Your task to perform on an android device: Go to Reddit.com Image 0: 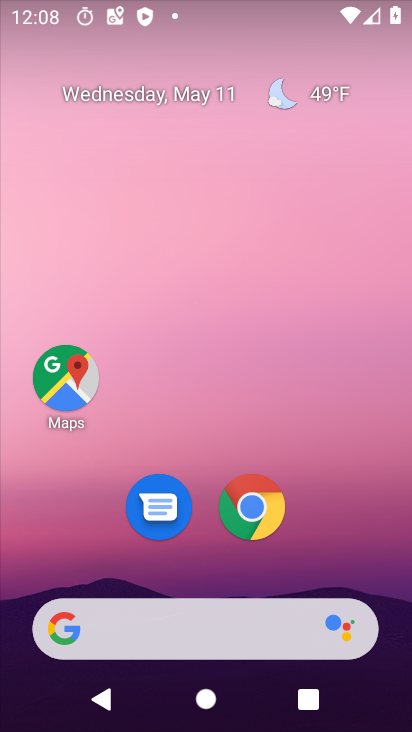
Step 0: drag from (204, 558) to (206, 25)
Your task to perform on an android device: Go to Reddit.com Image 1: 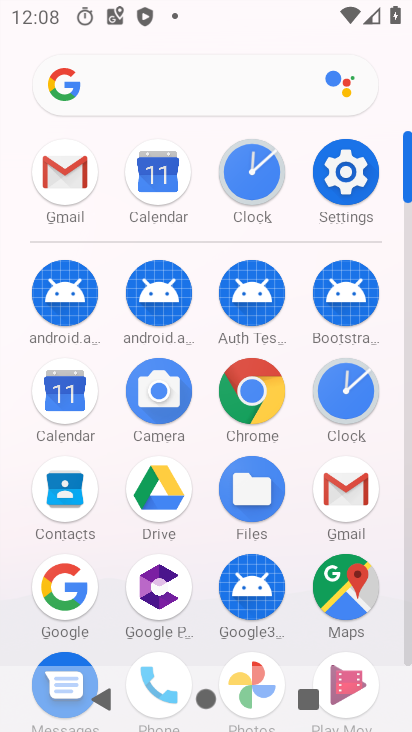
Step 1: click (68, 585)
Your task to perform on an android device: Go to Reddit.com Image 2: 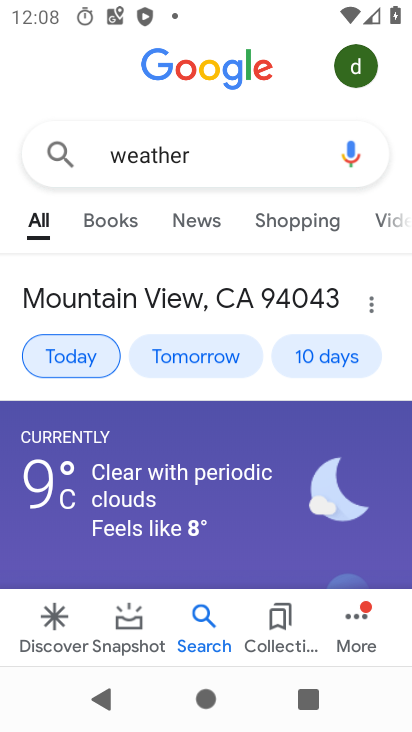
Step 2: click (241, 154)
Your task to perform on an android device: Go to Reddit.com Image 3: 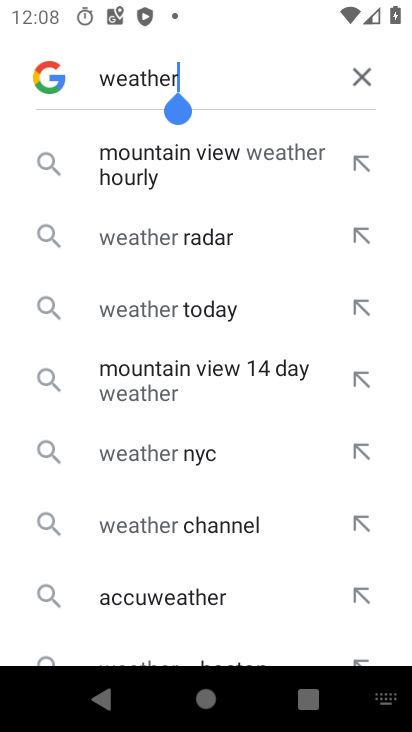
Step 3: click (353, 76)
Your task to perform on an android device: Go to Reddit.com Image 4: 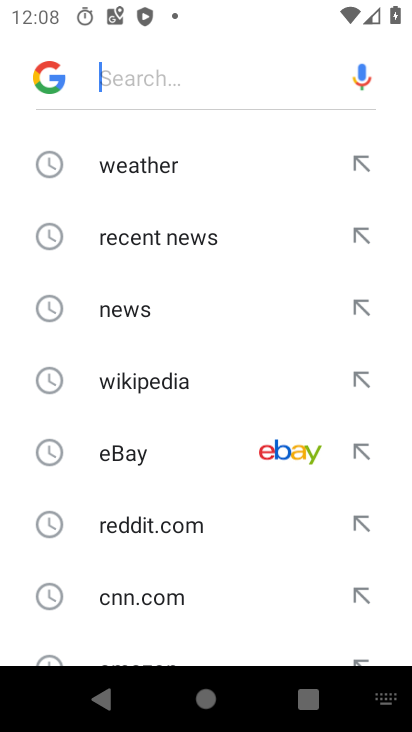
Step 4: click (154, 522)
Your task to perform on an android device: Go to Reddit.com Image 5: 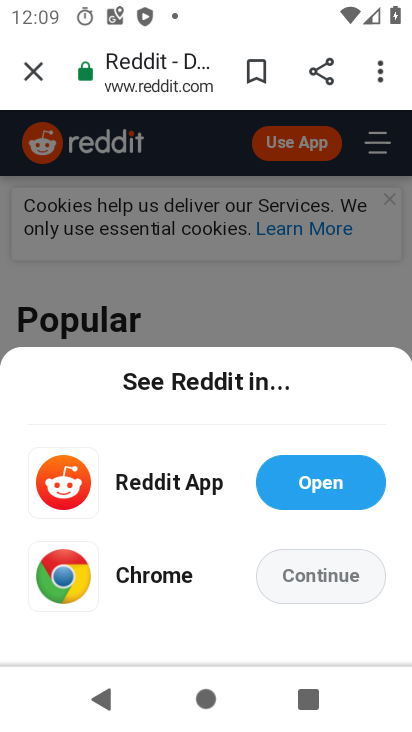
Step 5: task complete